Your task to perform on an android device: Play the last video I watched on Youtube Image 0: 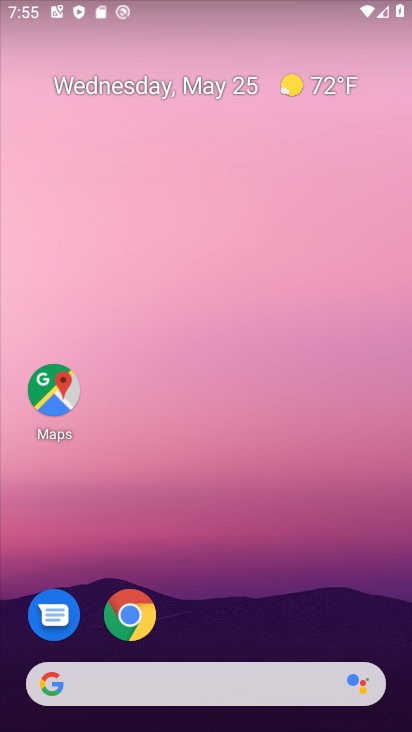
Step 0: drag from (332, 560) to (360, 12)
Your task to perform on an android device: Play the last video I watched on Youtube Image 1: 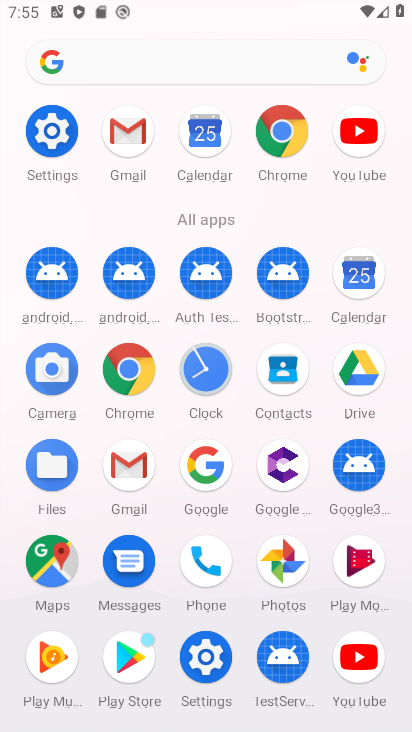
Step 1: click (355, 659)
Your task to perform on an android device: Play the last video I watched on Youtube Image 2: 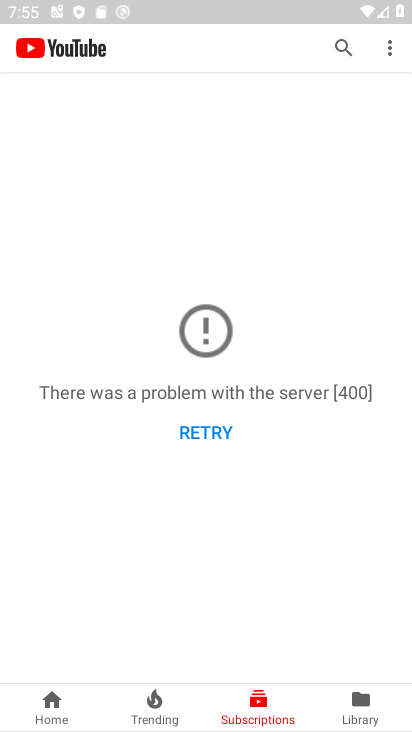
Step 2: click (220, 426)
Your task to perform on an android device: Play the last video I watched on Youtube Image 3: 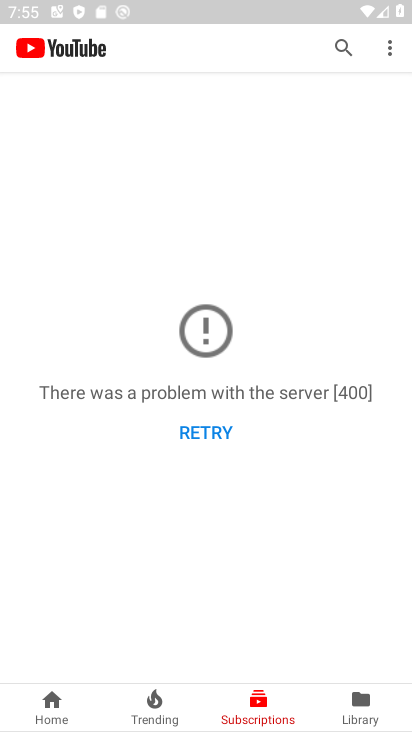
Step 3: click (220, 426)
Your task to perform on an android device: Play the last video I watched on Youtube Image 4: 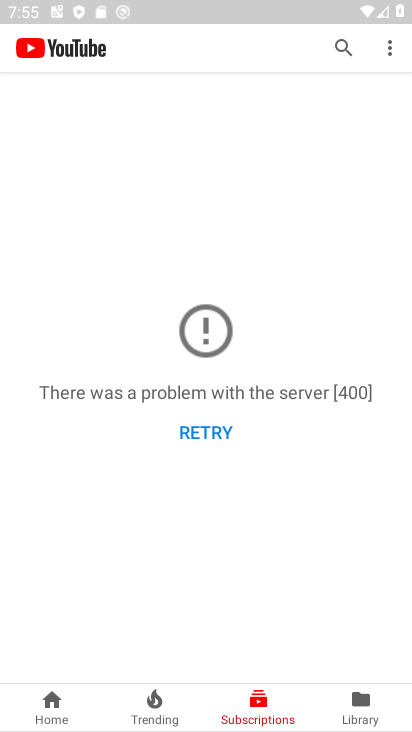
Step 4: click (220, 426)
Your task to perform on an android device: Play the last video I watched on Youtube Image 5: 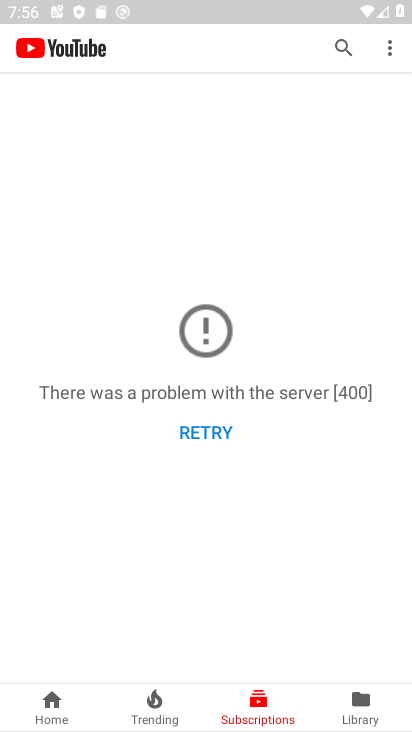
Step 5: task complete